Your task to perform on an android device: Search for "corsair k70" on walmart.com, select the first entry, add it to the cart, then select checkout. Image 0: 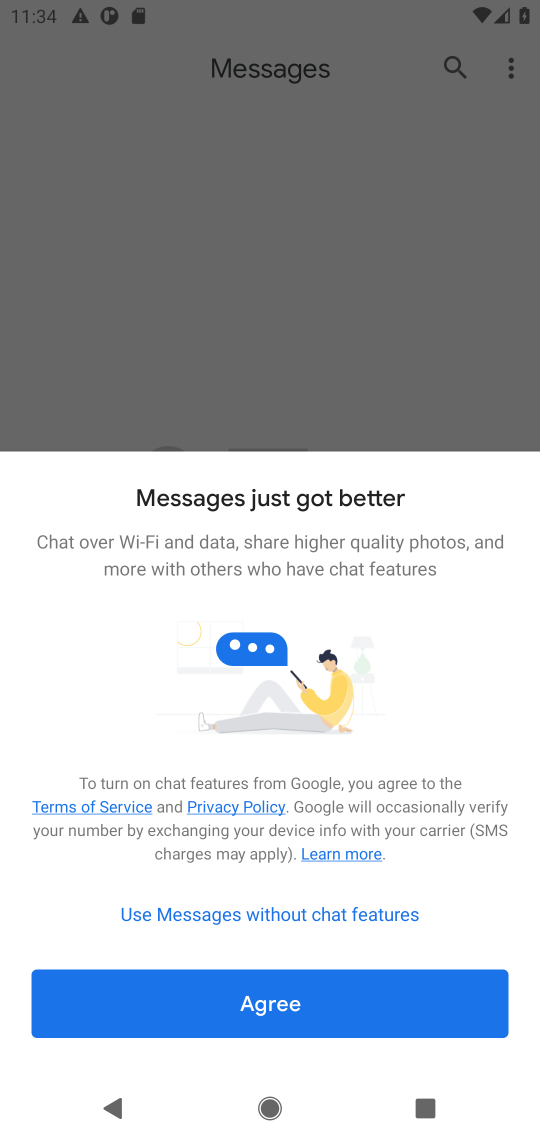
Step 0: press home button
Your task to perform on an android device: Search for "corsair k70" on walmart.com, select the first entry, add it to the cart, then select checkout. Image 1: 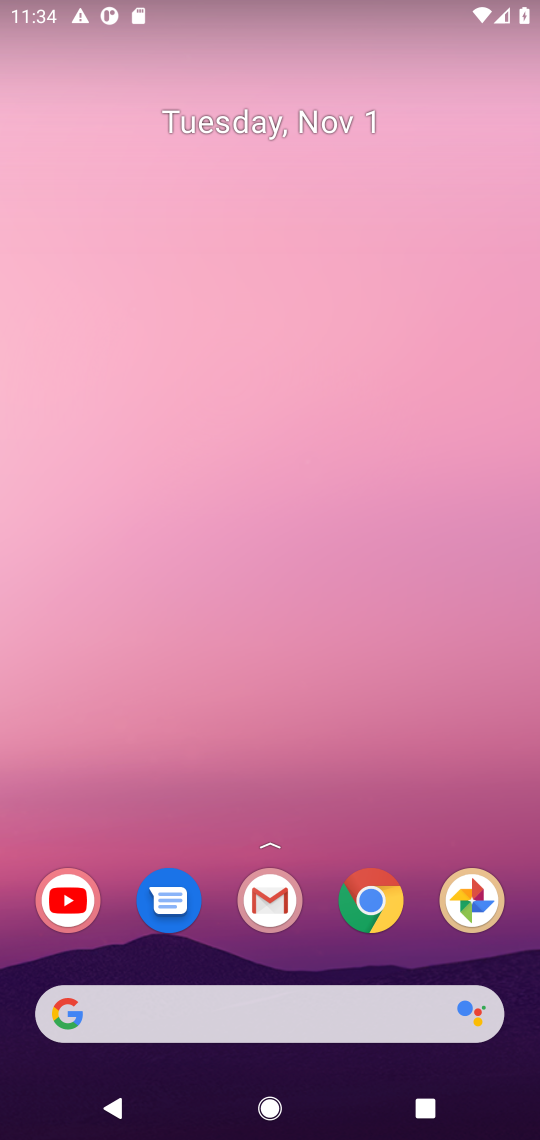
Step 1: click (379, 906)
Your task to perform on an android device: Search for "corsair k70" on walmart.com, select the first entry, add it to the cart, then select checkout. Image 2: 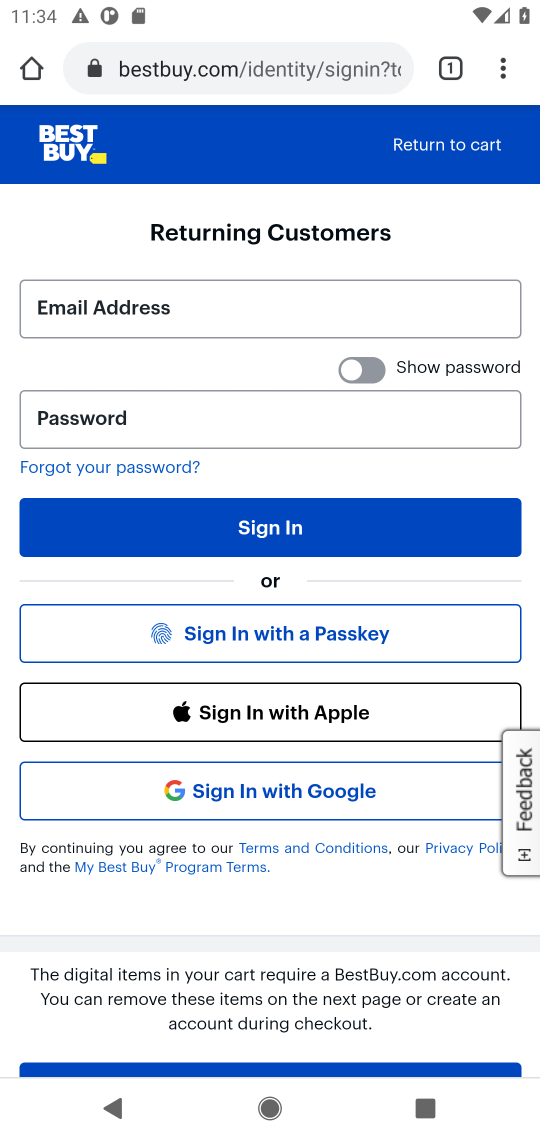
Step 2: click (234, 47)
Your task to perform on an android device: Search for "corsair k70" on walmart.com, select the first entry, add it to the cart, then select checkout. Image 3: 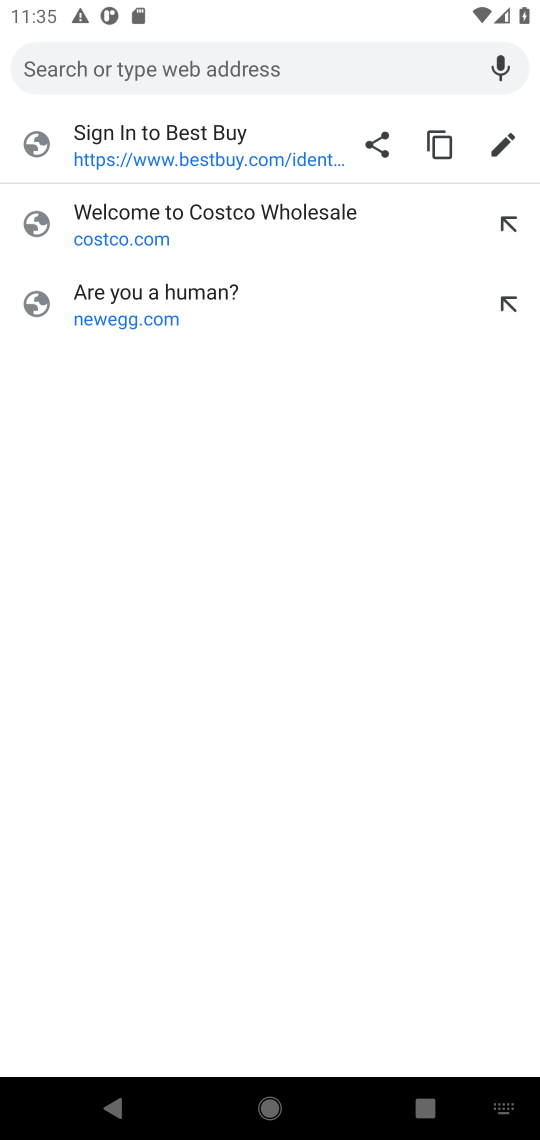
Step 3: type "walmart"
Your task to perform on an android device: Search for "corsair k70" on walmart.com, select the first entry, add it to the cart, then select checkout. Image 4: 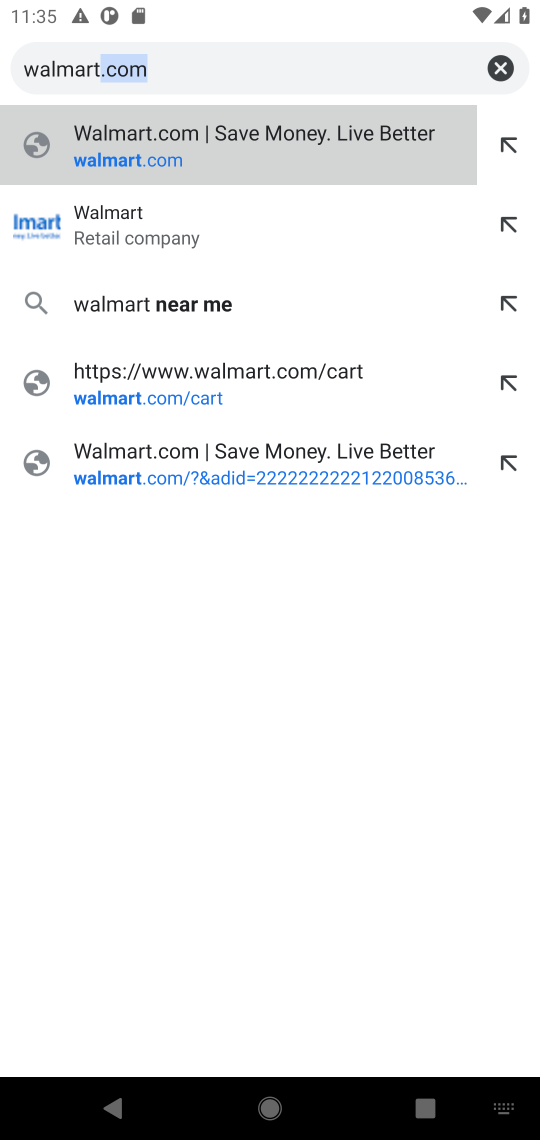
Step 4: click (83, 214)
Your task to perform on an android device: Search for "corsair k70" on walmart.com, select the first entry, add it to the cart, then select checkout. Image 5: 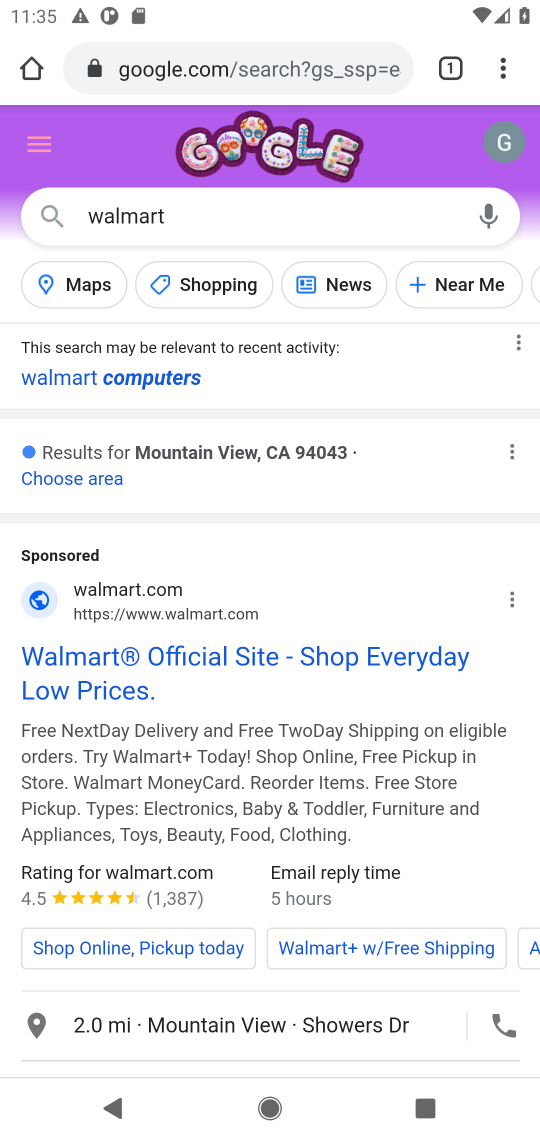
Step 5: click (127, 661)
Your task to perform on an android device: Search for "corsair k70" on walmart.com, select the first entry, add it to the cart, then select checkout. Image 6: 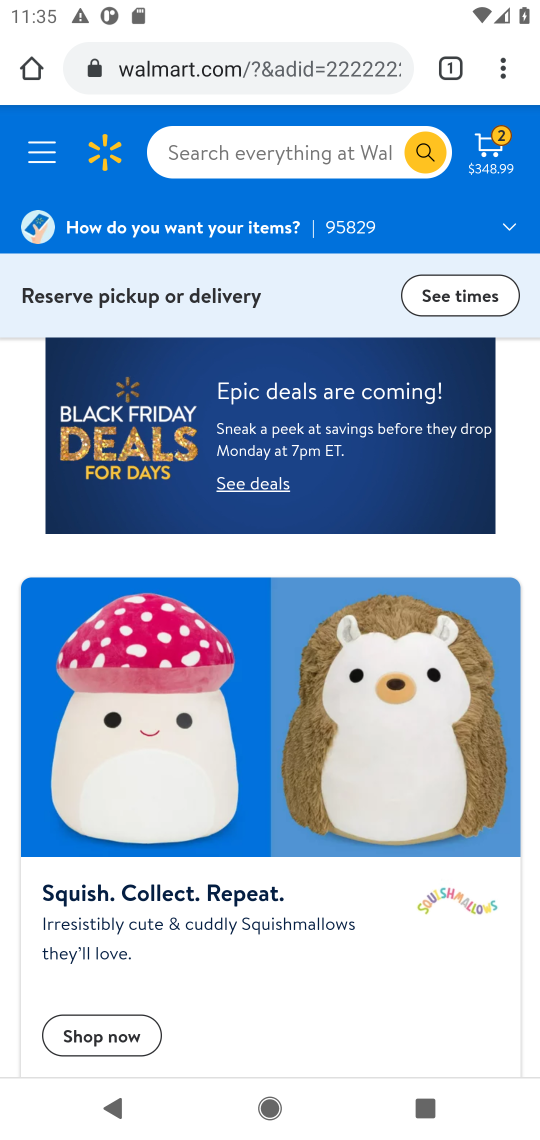
Step 6: click (369, 170)
Your task to perform on an android device: Search for "corsair k70" on walmart.com, select the first entry, add it to the cart, then select checkout. Image 7: 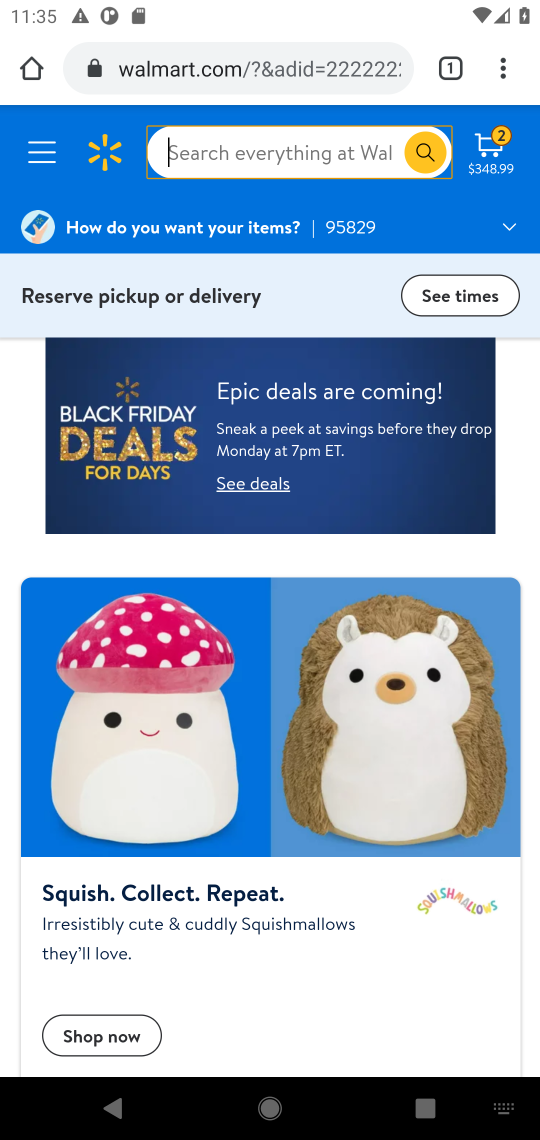
Step 7: type "corsair k70"
Your task to perform on an android device: Search for "corsair k70" on walmart.com, select the first entry, add it to the cart, then select checkout. Image 8: 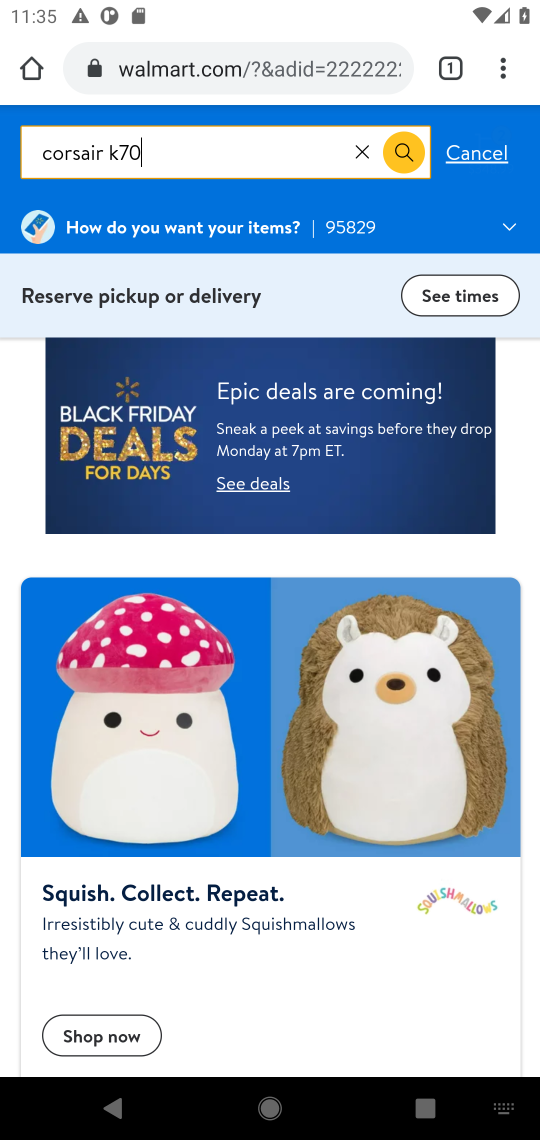
Step 8: type ""
Your task to perform on an android device: Search for "corsair k70" on walmart.com, select the first entry, add it to the cart, then select checkout. Image 9: 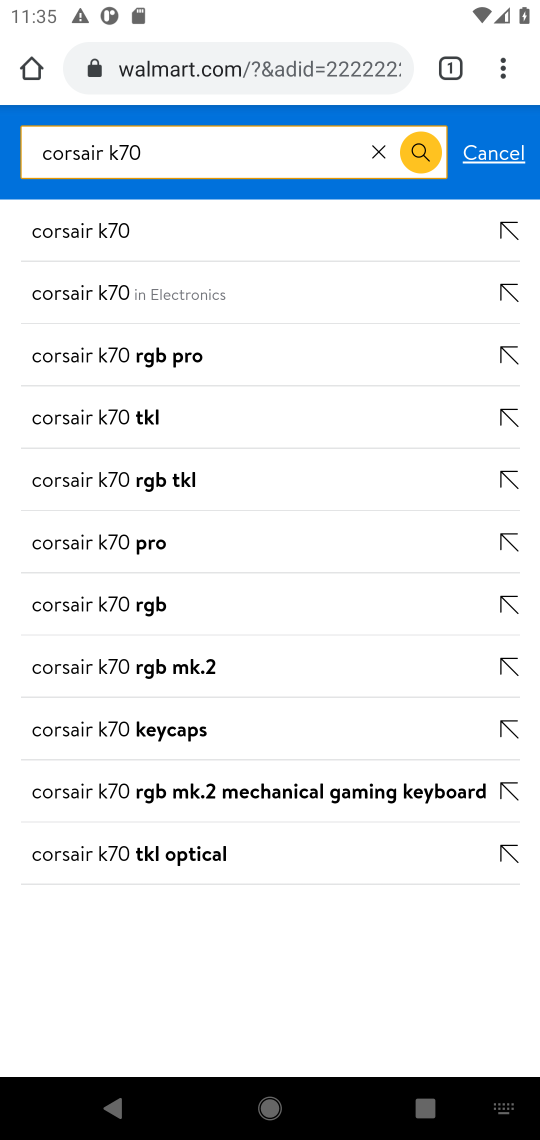
Step 9: click (430, 142)
Your task to perform on an android device: Search for "corsair k70" on walmart.com, select the first entry, add it to the cart, then select checkout. Image 10: 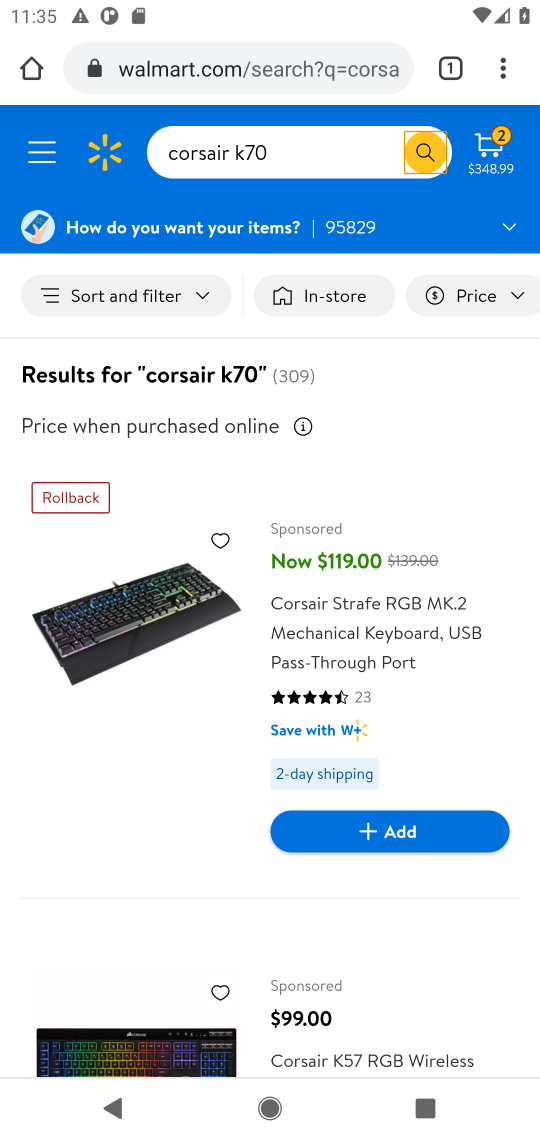
Step 10: click (371, 842)
Your task to perform on an android device: Search for "corsair k70" on walmart.com, select the first entry, add it to the cart, then select checkout. Image 11: 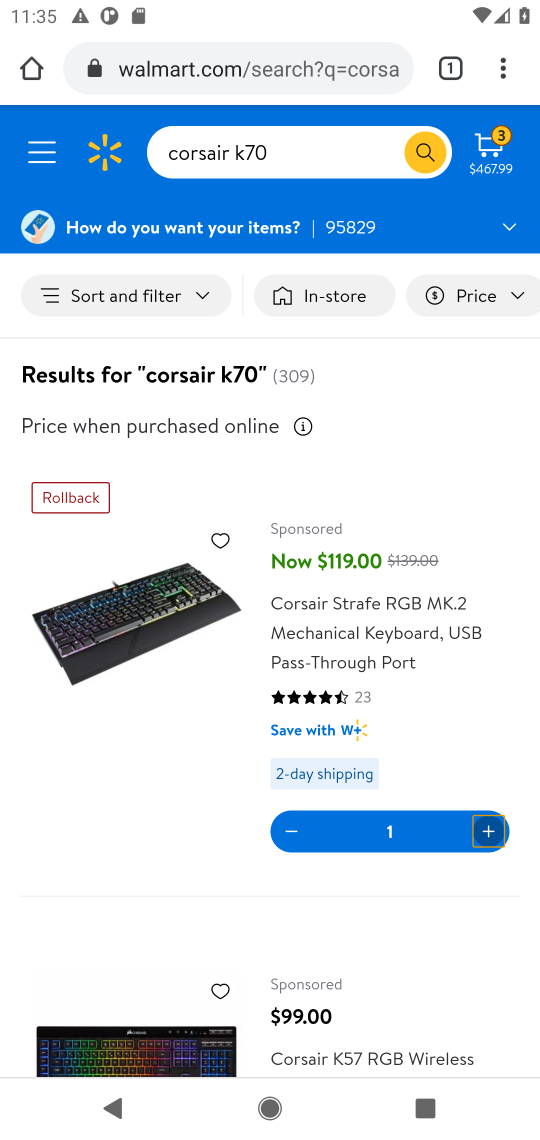
Step 11: click (493, 139)
Your task to perform on an android device: Search for "corsair k70" on walmart.com, select the first entry, add it to the cart, then select checkout. Image 12: 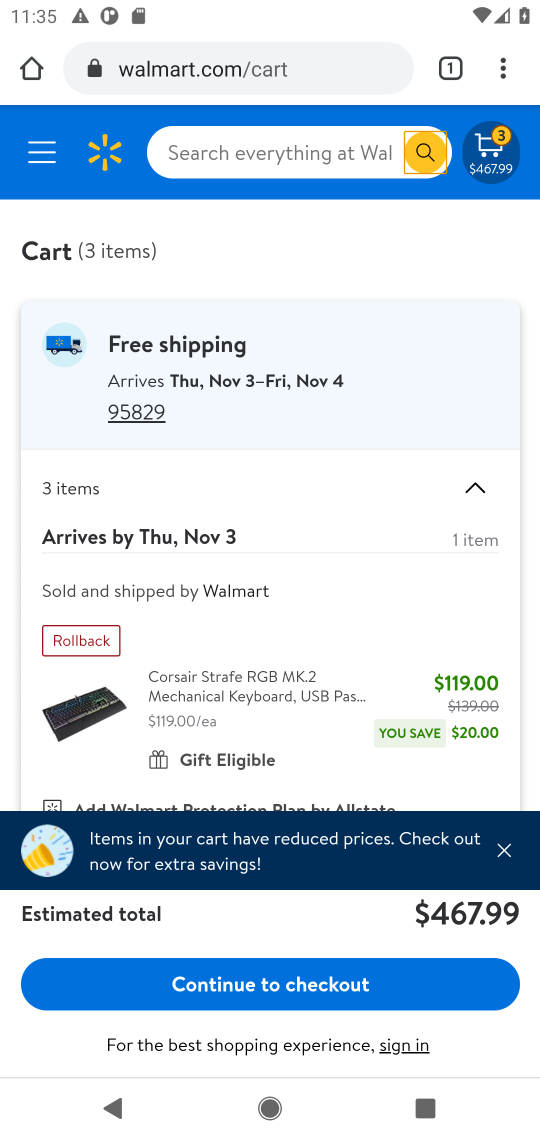
Step 12: drag from (243, 782) to (304, 343)
Your task to perform on an android device: Search for "corsair k70" on walmart.com, select the first entry, add it to the cart, then select checkout. Image 13: 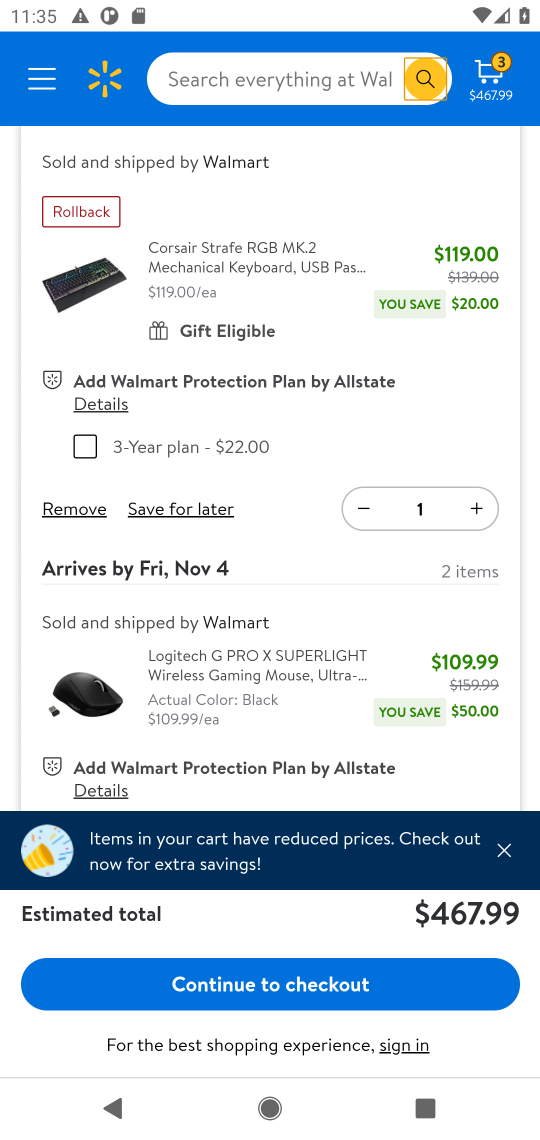
Step 13: click (287, 923)
Your task to perform on an android device: Search for "corsair k70" on walmart.com, select the first entry, add it to the cart, then select checkout. Image 14: 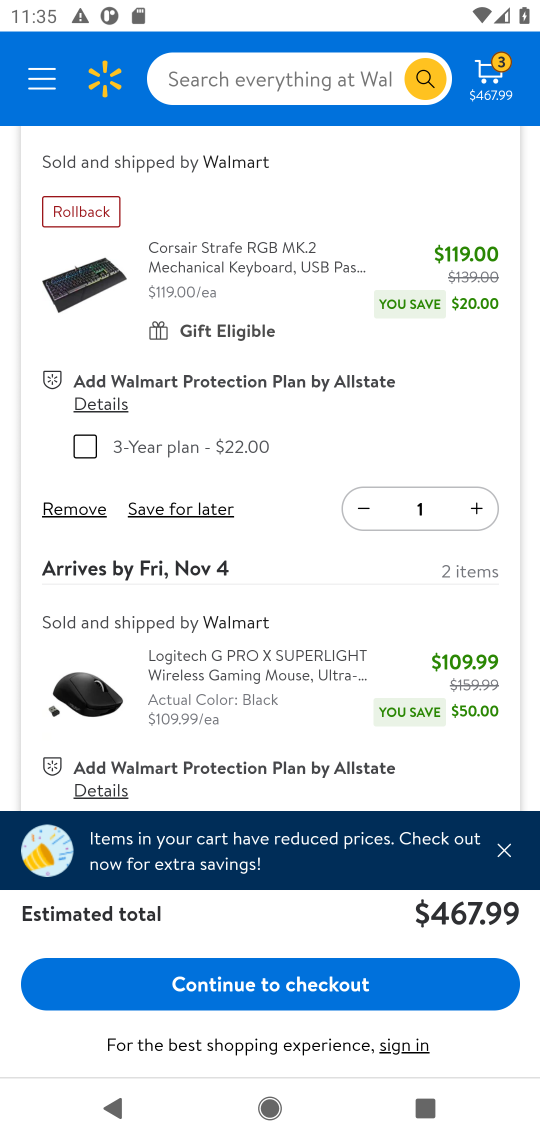
Step 14: click (329, 969)
Your task to perform on an android device: Search for "corsair k70" on walmart.com, select the first entry, add it to the cart, then select checkout. Image 15: 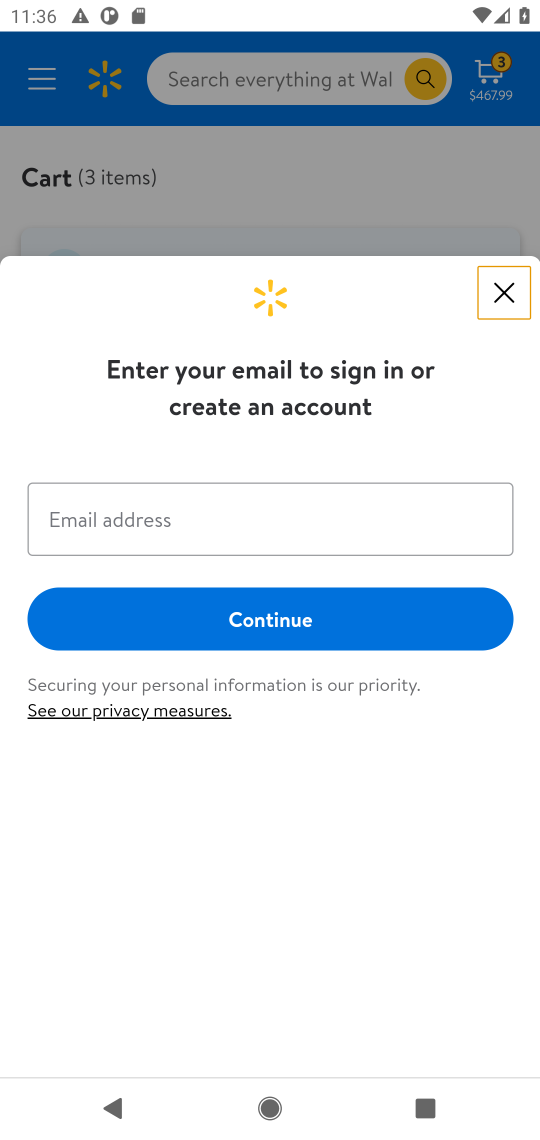
Step 15: task complete